Your task to perform on an android device: Open Google Maps Image 0: 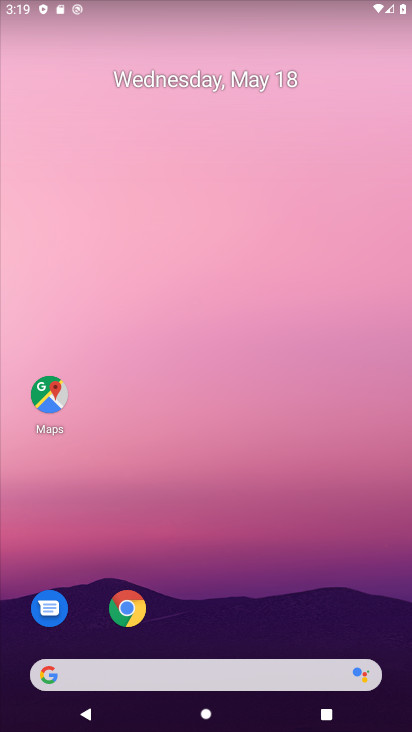
Step 0: click (40, 412)
Your task to perform on an android device: Open Google Maps Image 1: 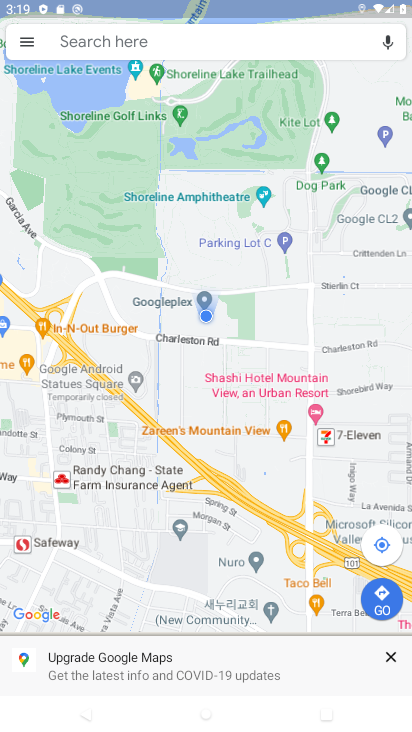
Step 1: task complete